Your task to perform on an android device: find photos in the google photos app Image 0: 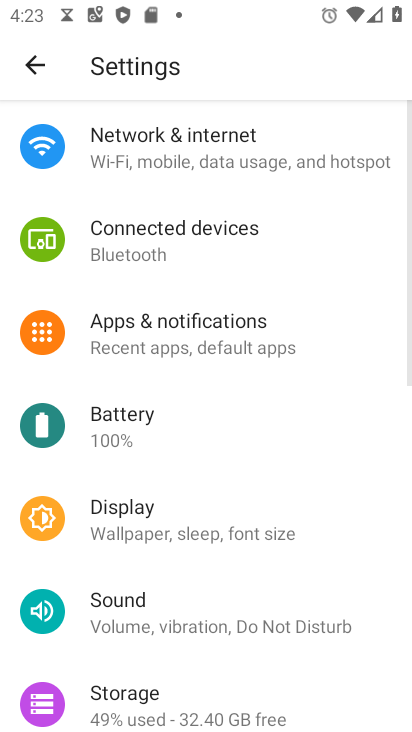
Step 0: press home button
Your task to perform on an android device: find photos in the google photos app Image 1: 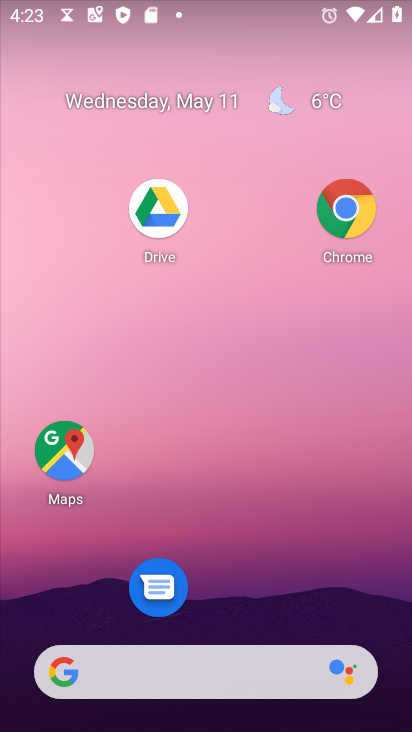
Step 1: drag from (340, 528) to (341, 60)
Your task to perform on an android device: find photos in the google photos app Image 2: 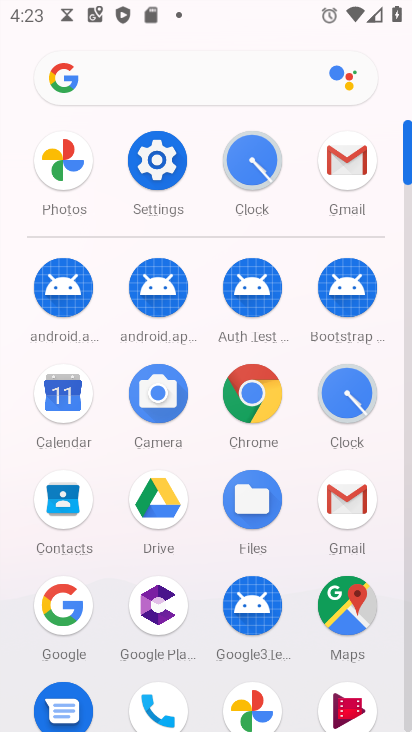
Step 2: click (233, 701)
Your task to perform on an android device: find photos in the google photos app Image 3: 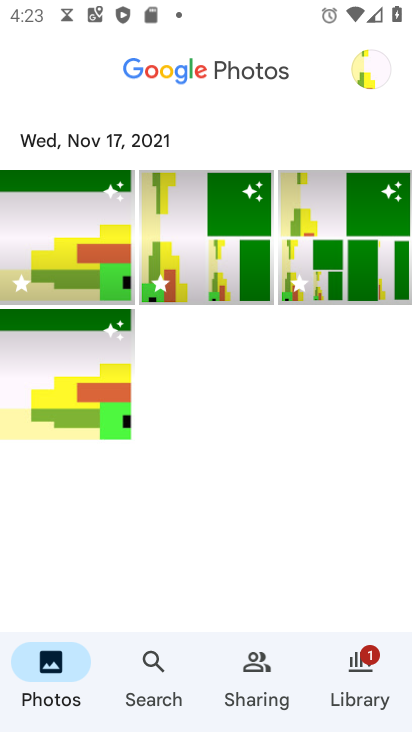
Step 3: task complete